Your task to perform on an android device: turn off improve location accuracy Image 0: 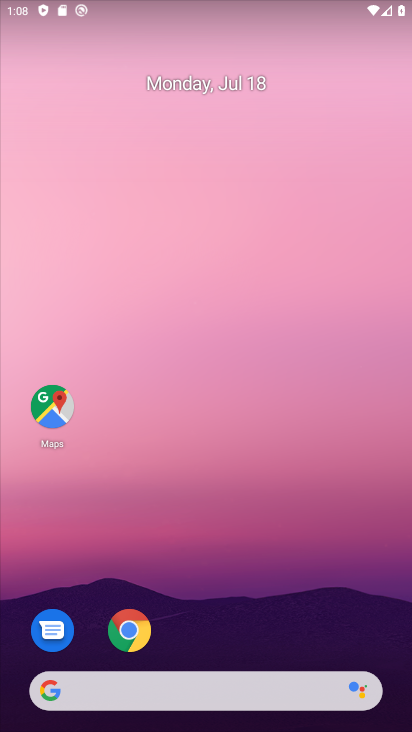
Step 0: drag from (179, 652) to (290, 144)
Your task to perform on an android device: turn off improve location accuracy Image 1: 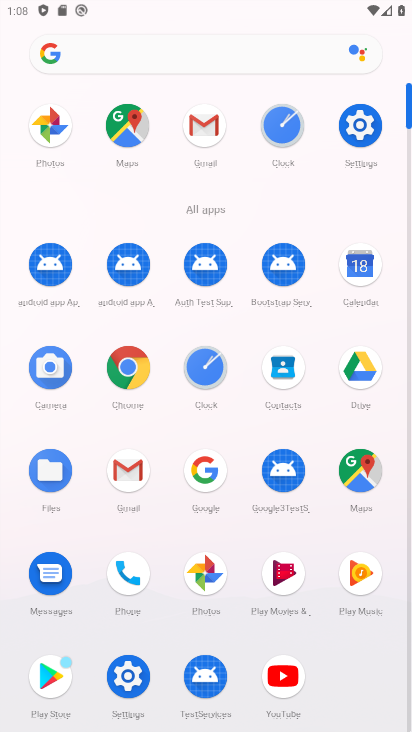
Step 1: click (105, 680)
Your task to perform on an android device: turn off improve location accuracy Image 2: 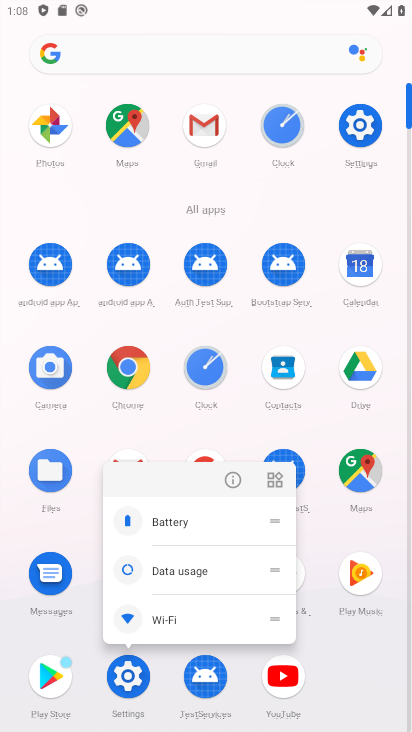
Step 2: click (113, 677)
Your task to perform on an android device: turn off improve location accuracy Image 3: 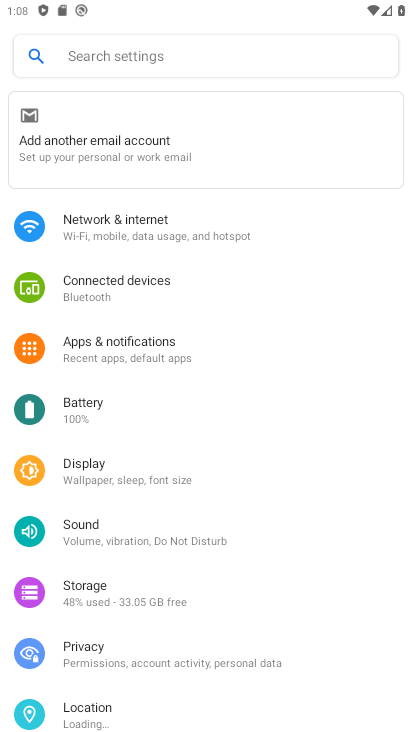
Step 3: click (102, 720)
Your task to perform on an android device: turn off improve location accuracy Image 4: 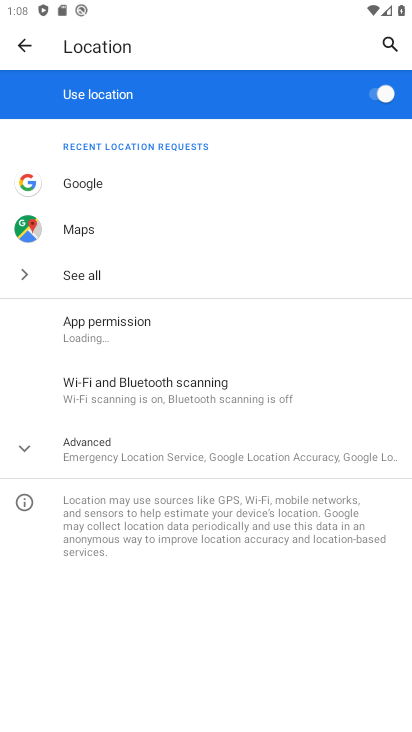
Step 4: click (206, 458)
Your task to perform on an android device: turn off improve location accuracy Image 5: 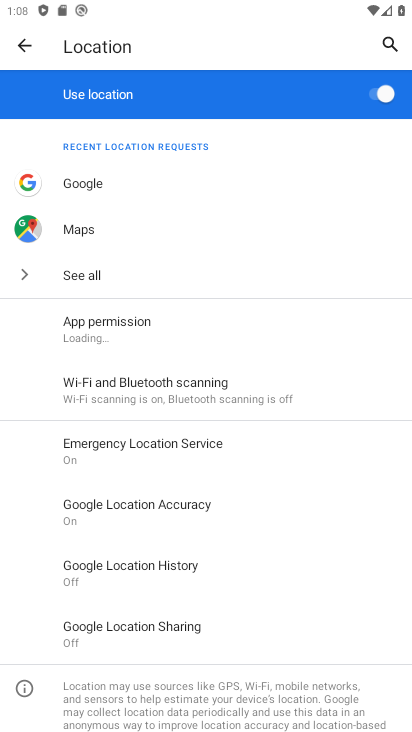
Step 5: click (167, 526)
Your task to perform on an android device: turn off improve location accuracy Image 6: 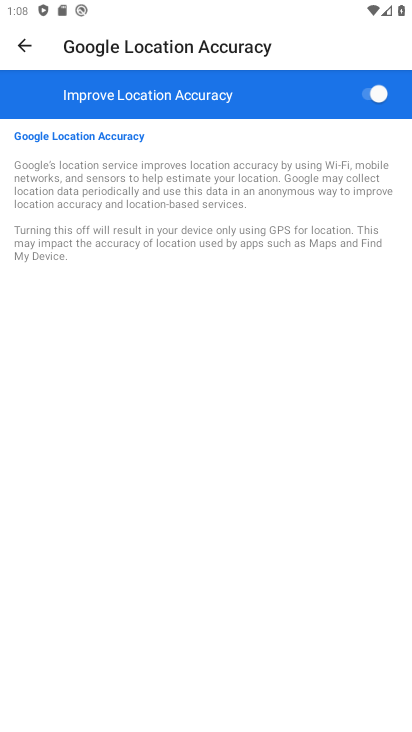
Step 6: click (369, 99)
Your task to perform on an android device: turn off improve location accuracy Image 7: 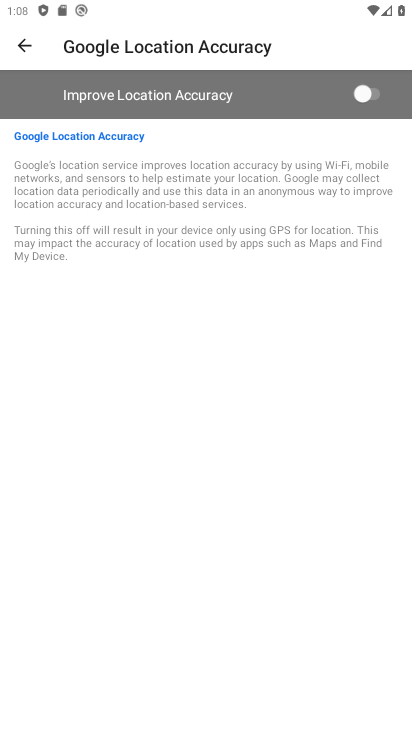
Step 7: task complete